Your task to perform on an android device: Go to display settings Image 0: 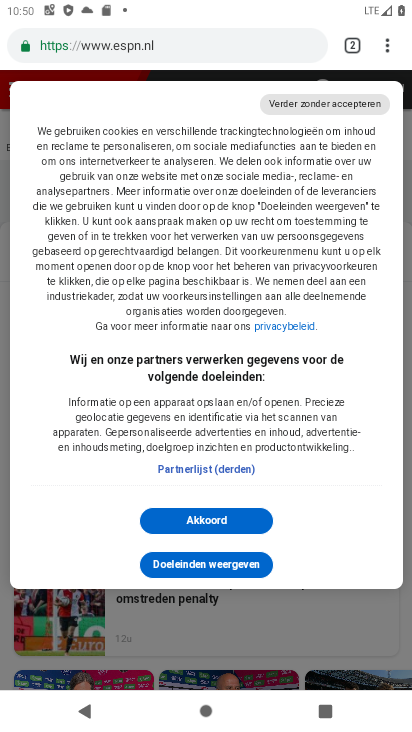
Step 0: press home button
Your task to perform on an android device: Go to display settings Image 1: 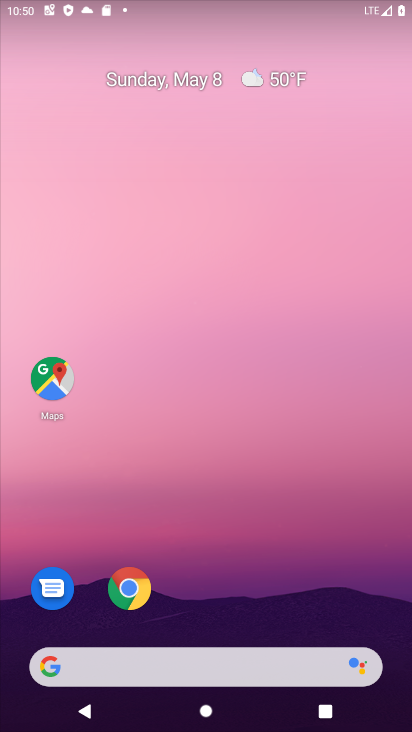
Step 1: drag from (259, 521) to (259, 61)
Your task to perform on an android device: Go to display settings Image 2: 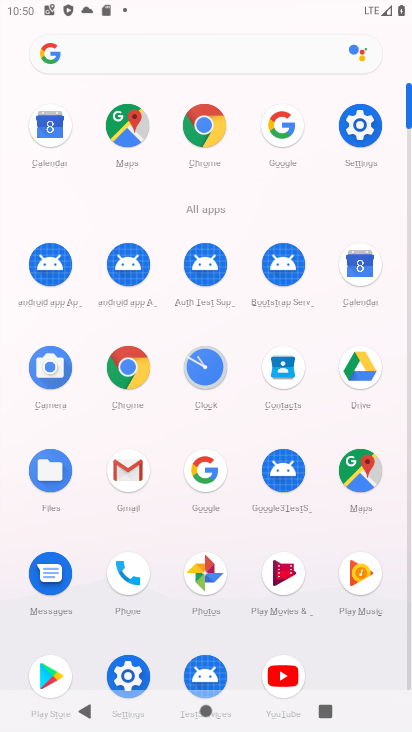
Step 2: click (356, 124)
Your task to perform on an android device: Go to display settings Image 3: 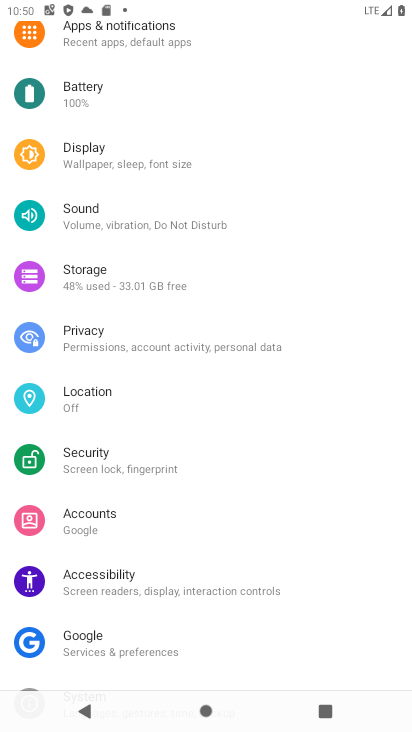
Step 3: click (120, 160)
Your task to perform on an android device: Go to display settings Image 4: 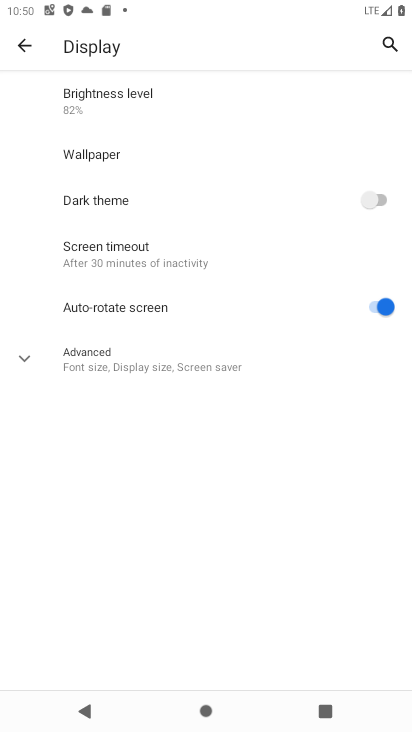
Step 4: task complete